Your task to perform on an android device: turn off priority inbox in the gmail app Image 0: 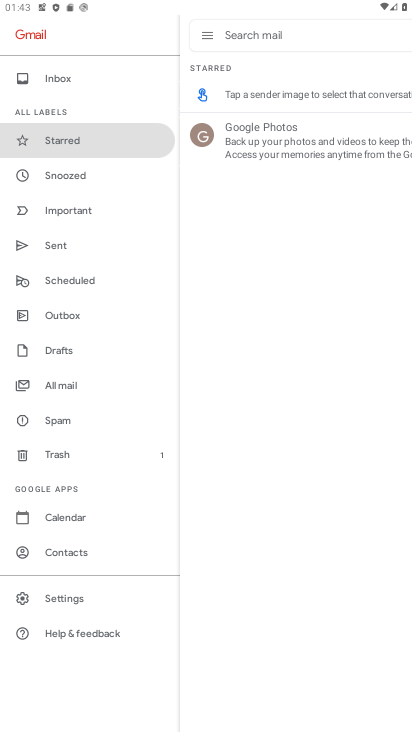
Step 0: click (40, 590)
Your task to perform on an android device: turn off priority inbox in the gmail app Image 1: 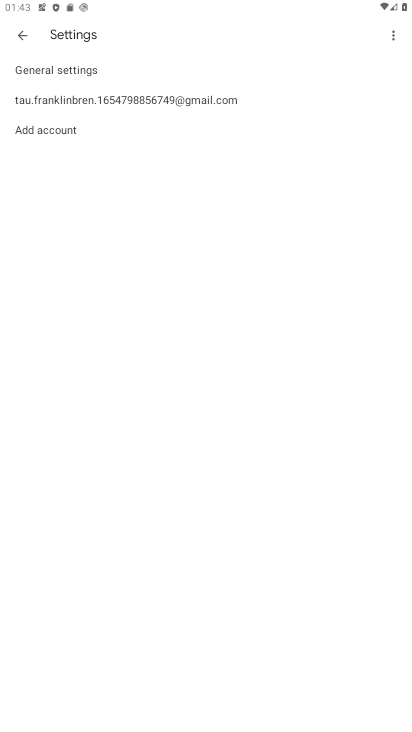
Step 1: click (76, 100)
Your task to perform on an android device: turn off priority inbox in the gmail app Image 2: 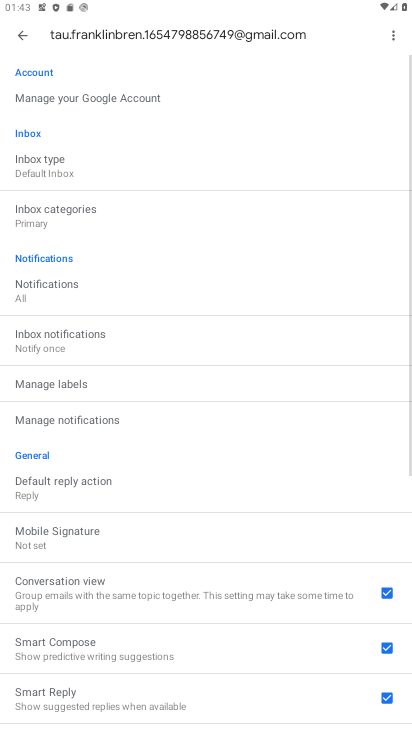
Step 2: task complete